Your task to perform on an android device: allow notifications from all sites in the chrome app Image 0: 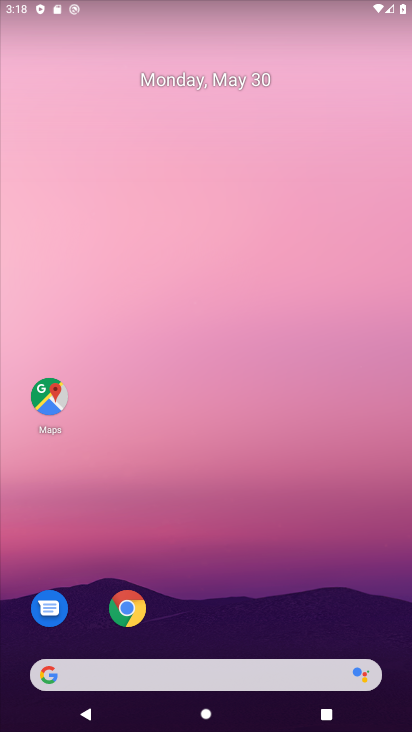
Step 0: drag from (210, 613) to (162, 300)
Your task to perform on an android device: allow notifications from all sites in the chrome app Image 1: 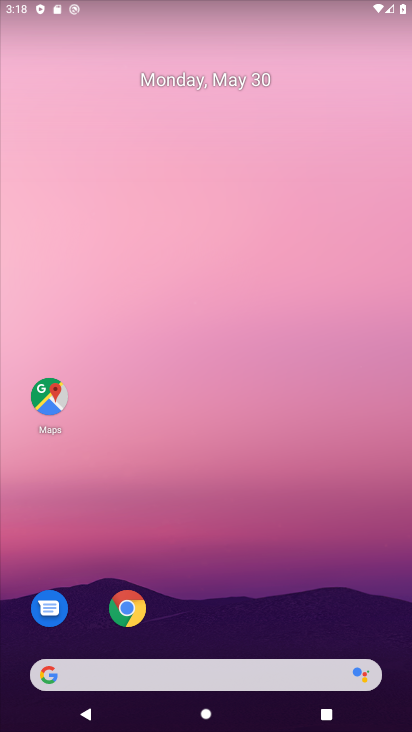
Step 1: click (131, 603)
Your task to perform on an android device: allow notifications from all sites in the chrome app Image 2: 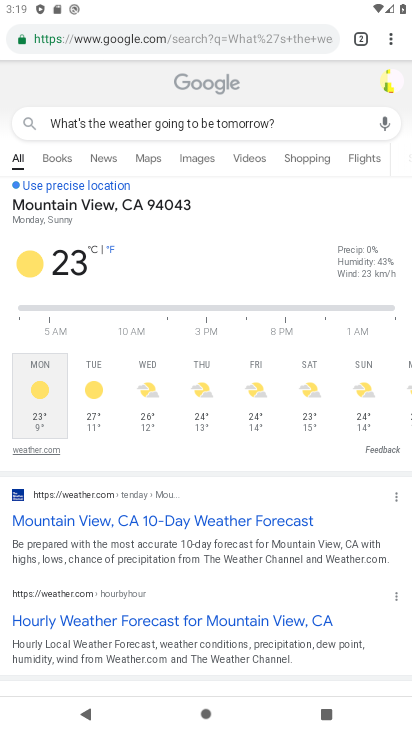
Step 2: click (391, 36)
Your task to perform on an android device: allow notifications from all sites in the chrome app Image 3: 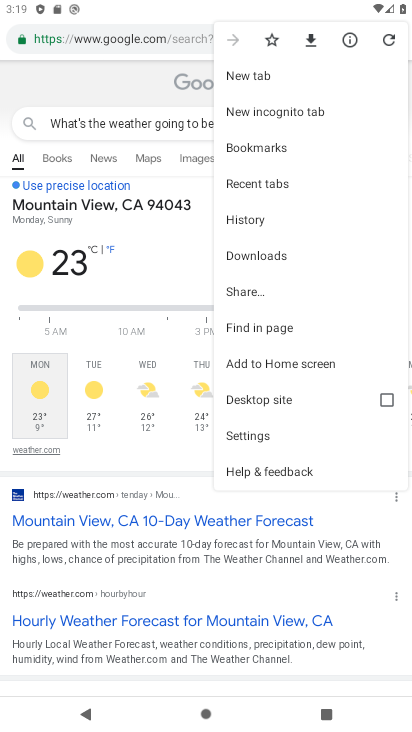
Step 3: click (265, 432)
Your task to perform on an android device: allow notifications from all sites in the chrome app Image 4: 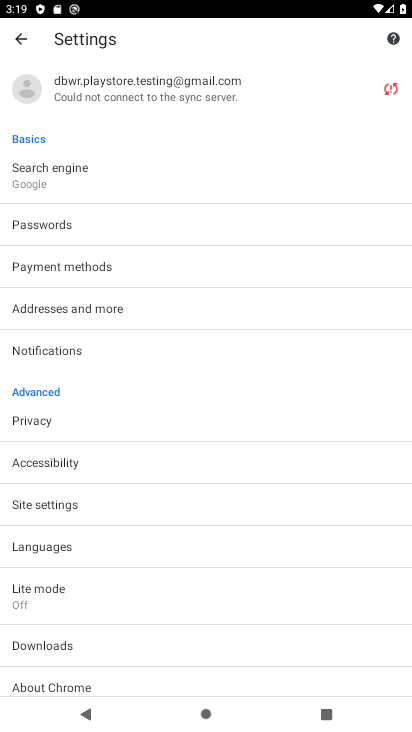
Step 4: click (86, 499)
Your task to perform on an android device: allow notifications from all sites in the chrome app Image 5: 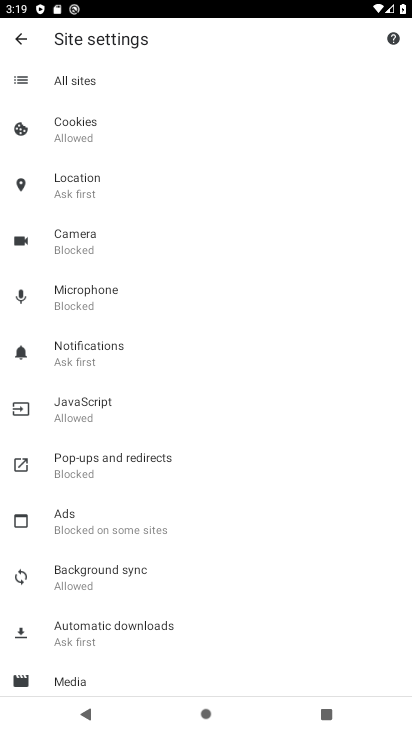
Step 5: click (142, 130)
Your task to perform on an android device: allow notifications from all sites in the chrome app Image 6: 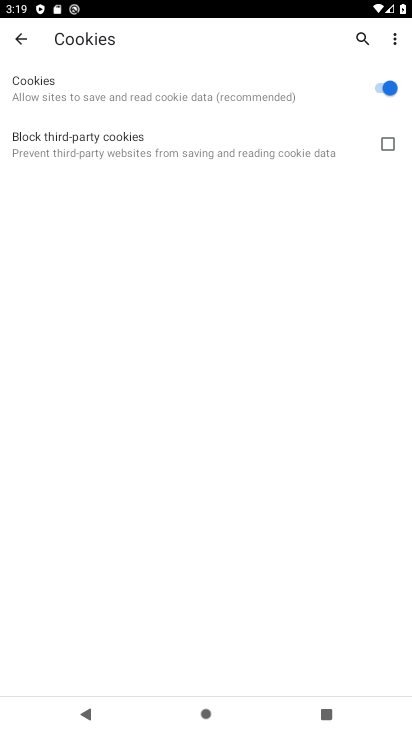
Step 6: click (20, 33)
Your task to perform on an android device: allow notifications from all sites in the chrome app Image 7: 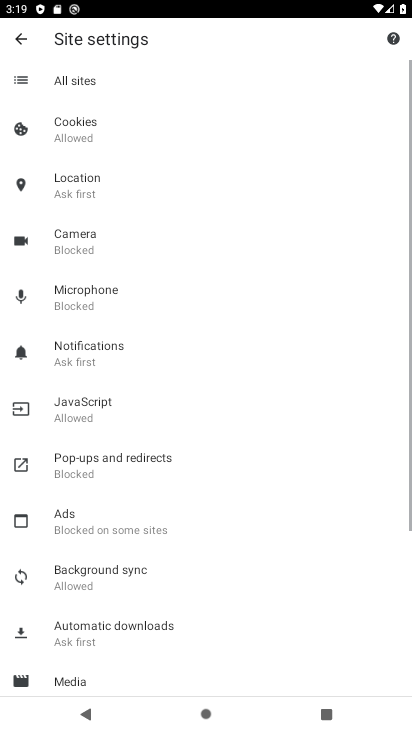
Step 7: click (82, 226)
Your task to perform on an android device: allow notifications from all sites in the chrome app Image 8: 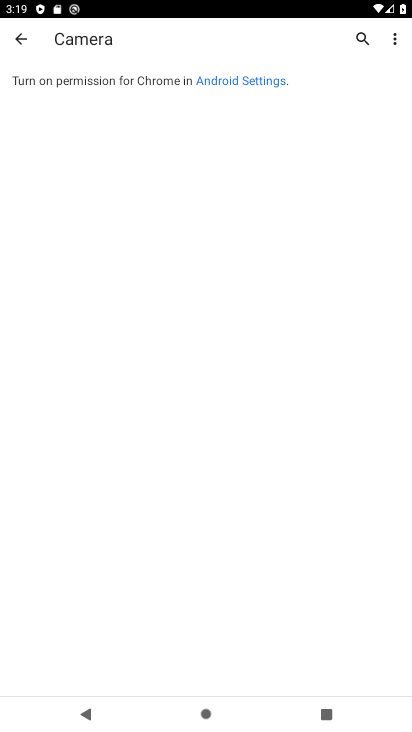
Step 8: click (32, 50)
Your task to perform on an android device: allow notifications from all sites in the chrome app Image 9: 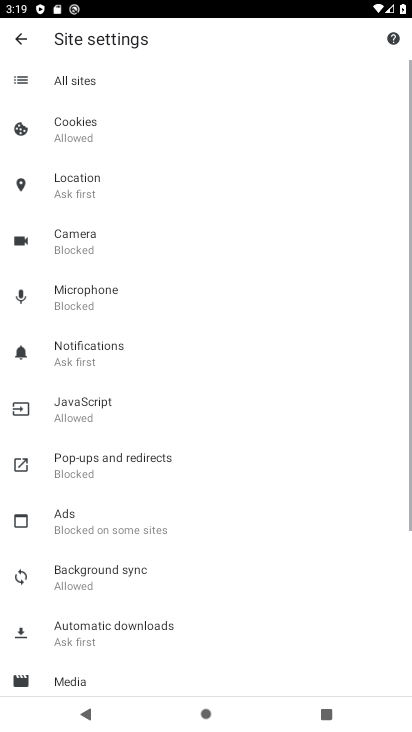
Step 9: click (115, 353)
Your task to perform on an android device: allow notifications from all sites in the chrome app Image 10: 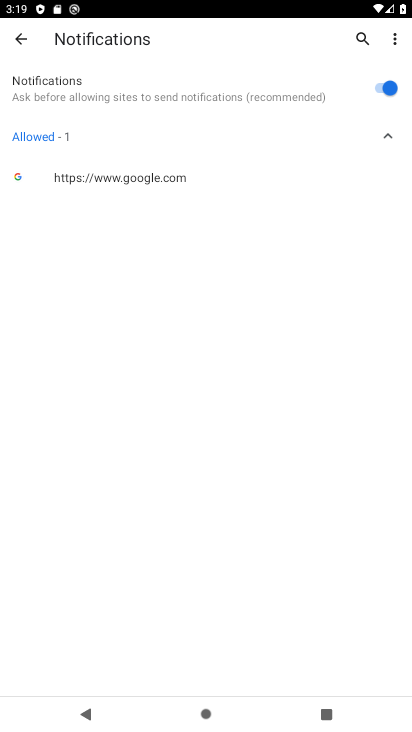
Step 10: click (28, 44)
Your task to perform on an android device: allow notifications from all sites in the chrome app Image 11: 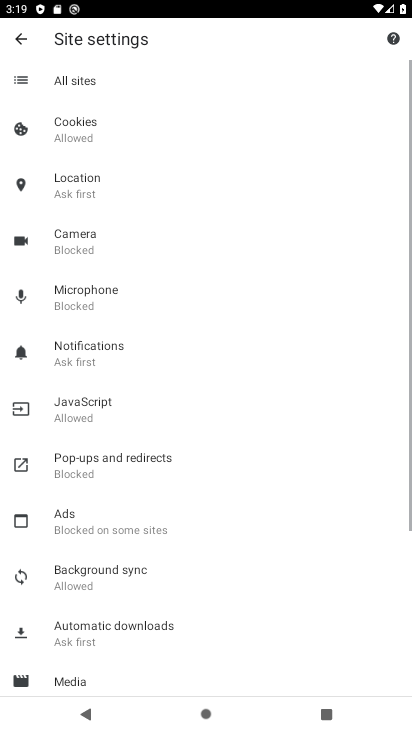
Step 11: task complete